Your task to perform on an android device: Open the calendar and show me this week's events Image 0: 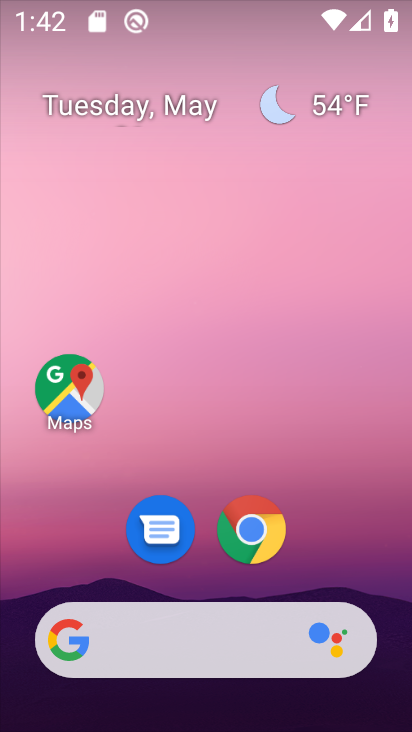
Step 0: drag from (338, 564) to (292, 236)
Your task to perform on an android device: Open the calendar and show me this week's events Image 1: 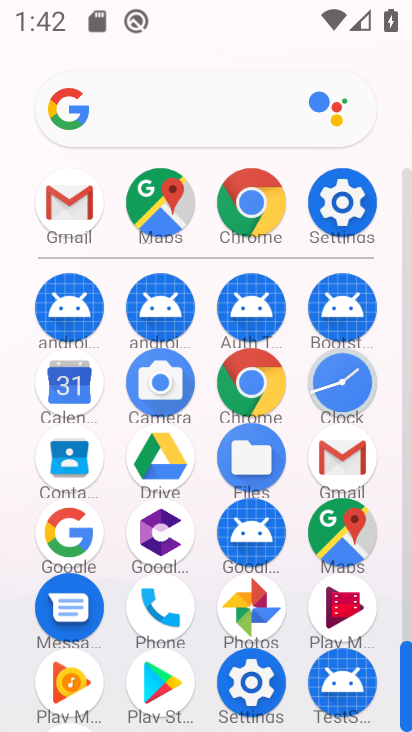
Step 1: click (63, 381)
Your task to perform on an android device: Open the calendar and show me this week's events Image 2: 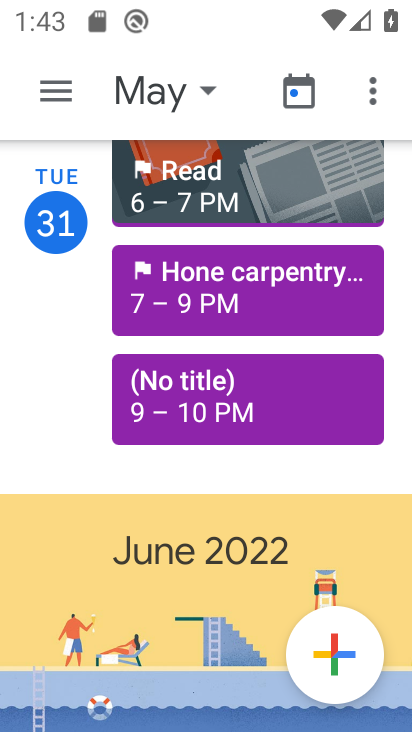
Step 2: click (47, 90)
Your task to perform on an android device: Open the calendar and show me this week's events Image 3: 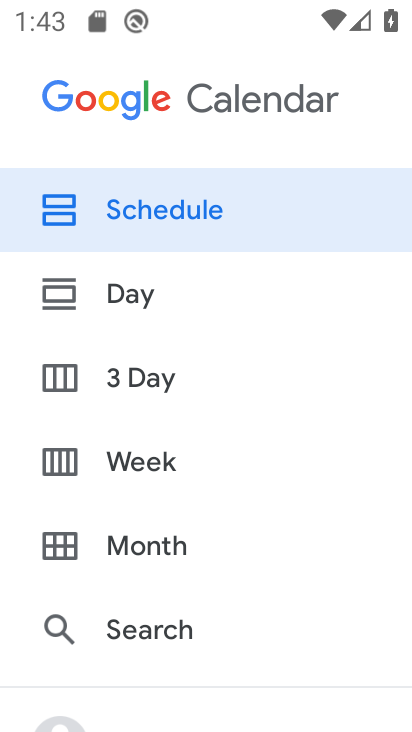
Step 3: click (135, 455)
Your task to perform on an android device: Open the calendar and show me this week's events Image 4: 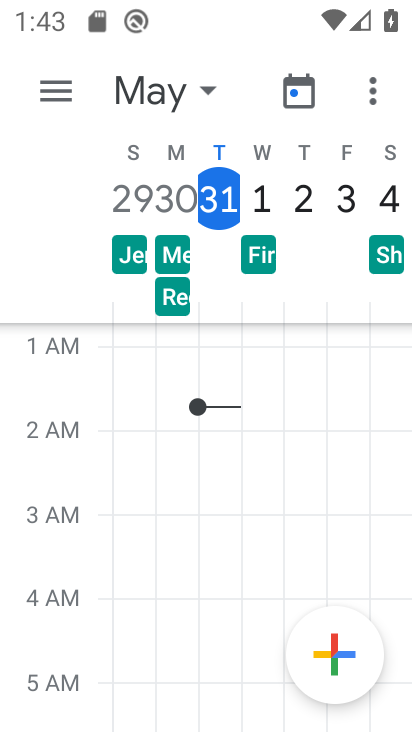
Step 4: task complete